Your task to perform on an android device: Go to calendar. Show me events next week Image 0: 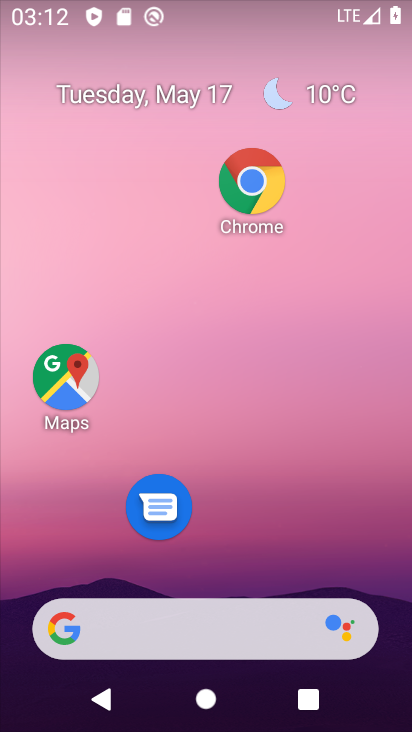
Step 0: click (169, 105)
Your task to perform on an android device: Go to calendar. Show me events next week Image 1: 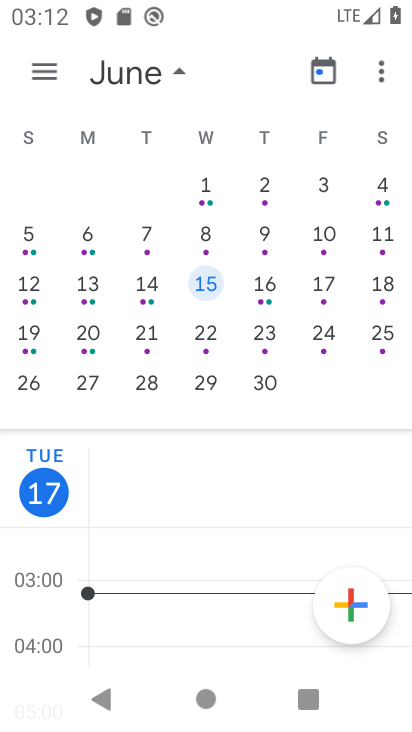
Step 1: click (194, 337)
Your task to perform on an android device: Go to calendar. Show me events next week Image 2: 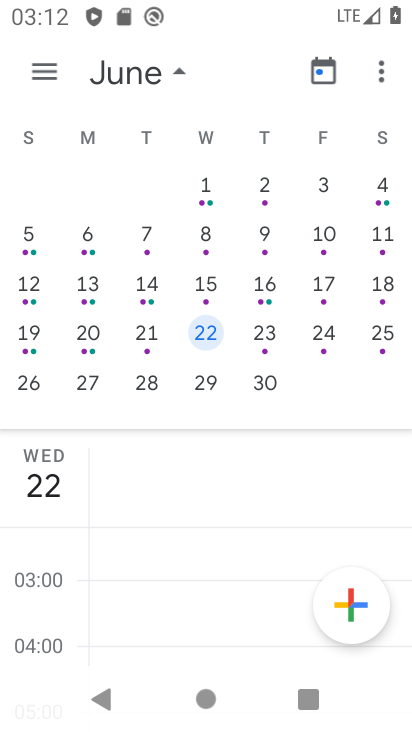
Step 2: drag from (135, 517) to (216, 29)
Your task to perform on an android device: Go to calendar. Show me events next week Image 3: 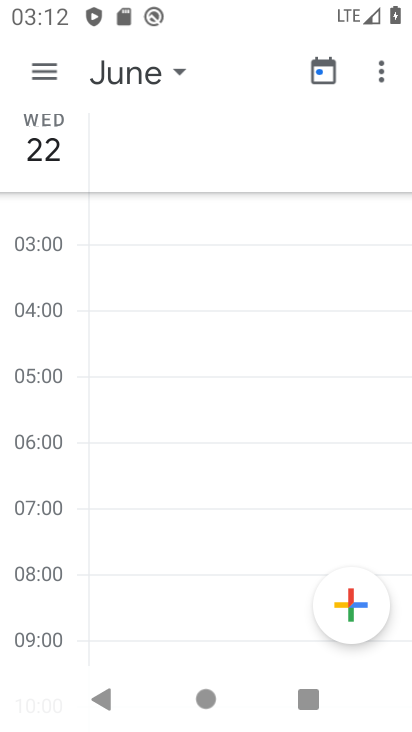
Step 3: click (52, 69)
Your task to perform on an android device: Go to calendar. Show me events next week Image 4: 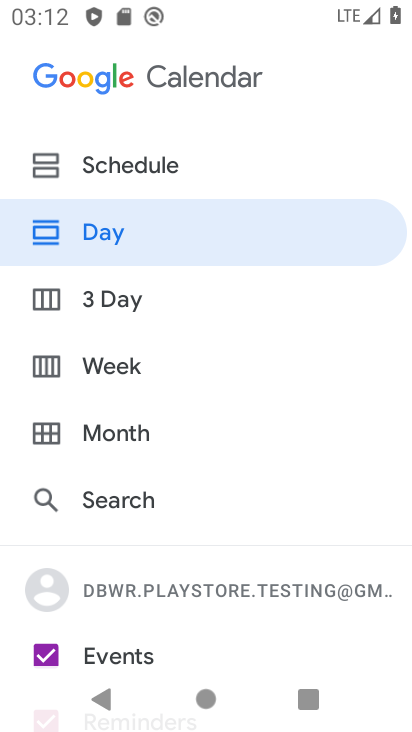
Step 4: click (136, 159)
Your task to perform on an android device: Go to calendar. Show me events next week Image 5: 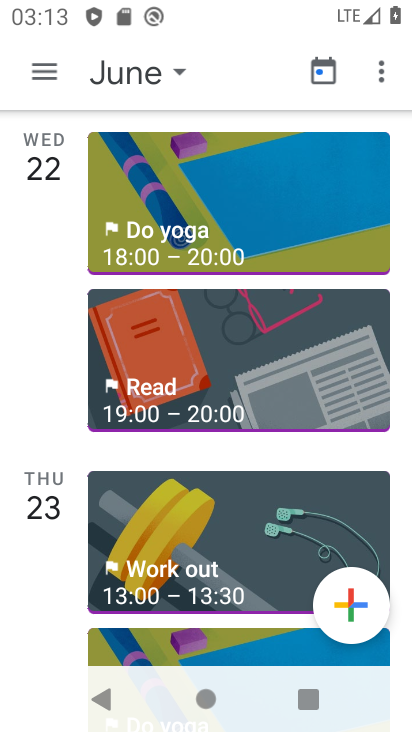
Step 5: click (163, 73)
Your task to perform on an android device: Go to calendar. Show me events next week Image 6: 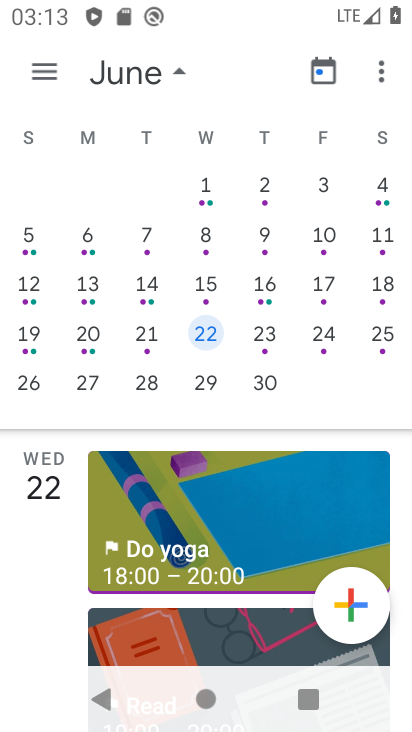
Step 6: click (159, 71)
Your task to perform on an android device: Go to calendar. Show me events next week Image 7: 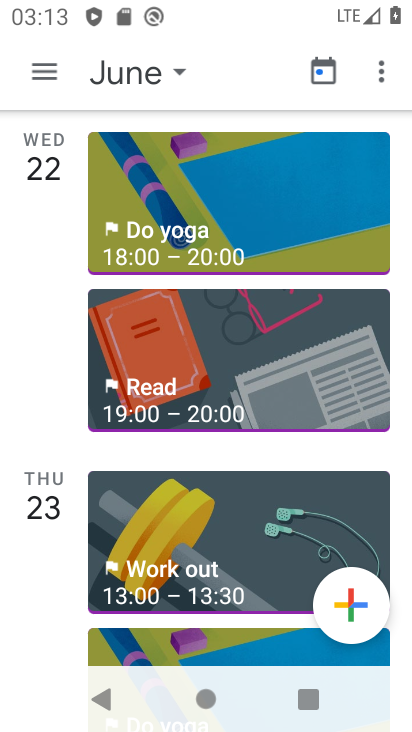
Step 7: click (159, 71)
Your task to perform on an android device: Go to calendar. Show me events next week Image 8: 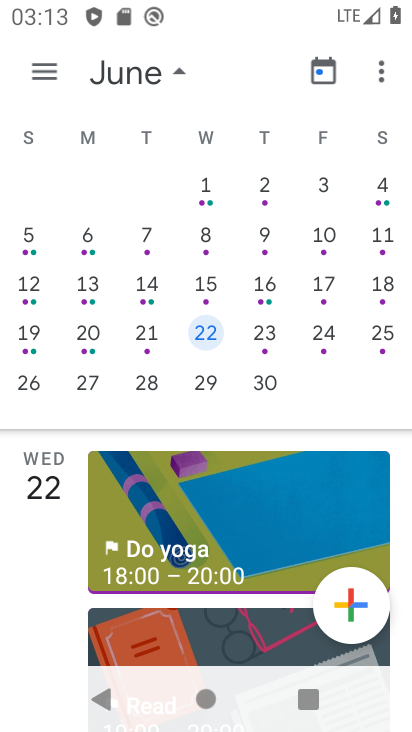
Step 8: drag from (63, 358) to (401, 327)
Your task to perform on an android device: Go to calendar. Show me events next week Image 9: 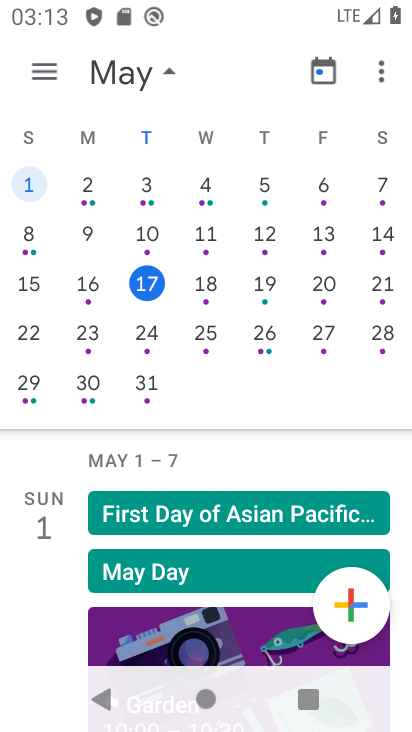
Step 9: click (148, 332)
Your task to perform on an android device: Go to calendar. Show me events next week Image 10: 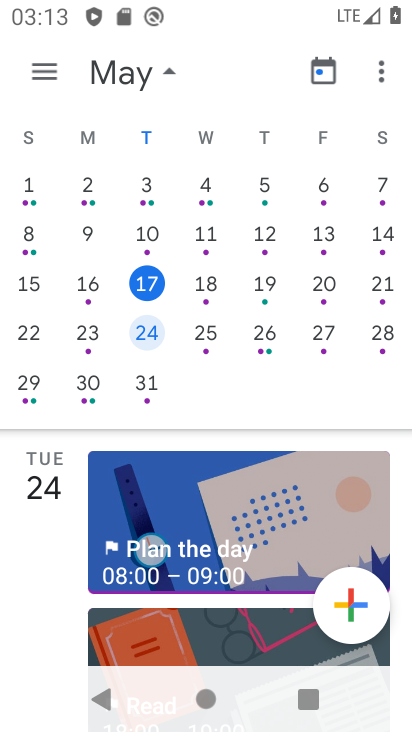
Step 10: task complete